Your task to perform on an android device: turn off notifications settings in the gmail app Image 0: 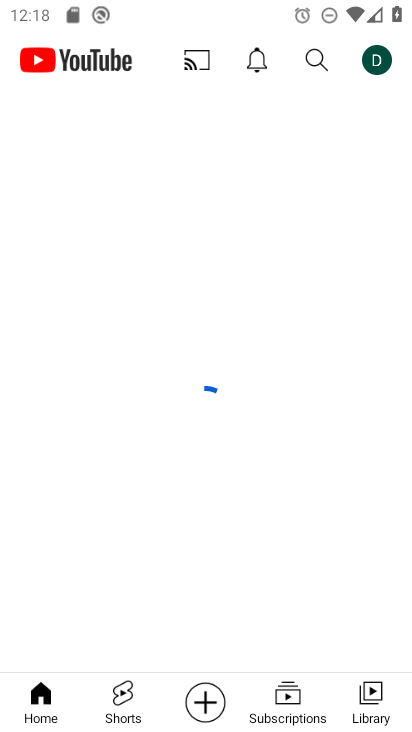
Step 0: press home button
Your task to perform on an android device: turn off notifications settings in the gmail app Image 1: 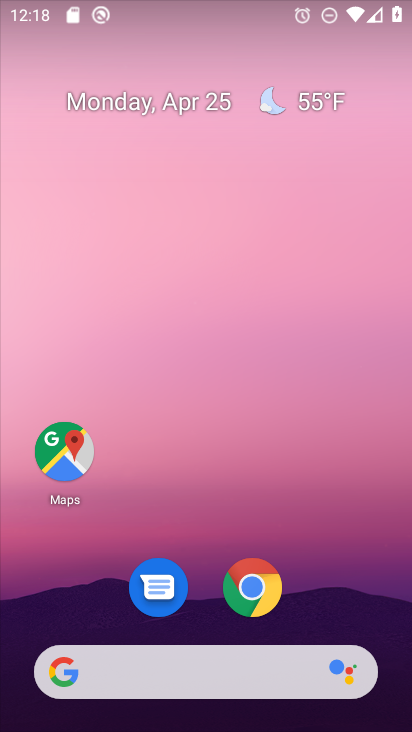
Step 1: drag from (323, 567) to (270, 50)
Your task to perform on an android device: turn off notifications settings in the gmail app Image 2: 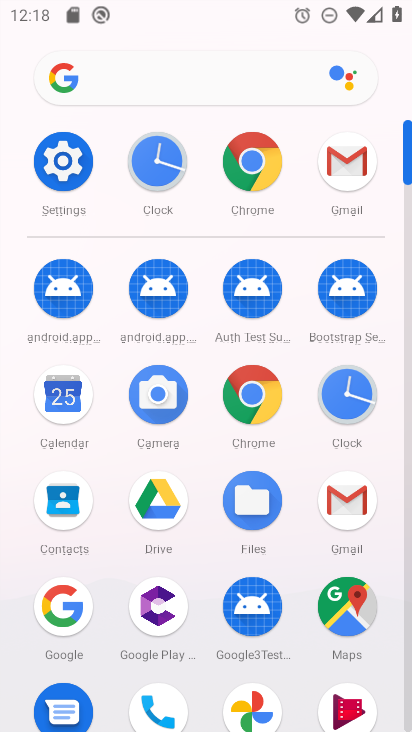
Step 2: click (349, 170)
Your task to perform on an android device: turn off notifications settings in the gmail app Image 3: 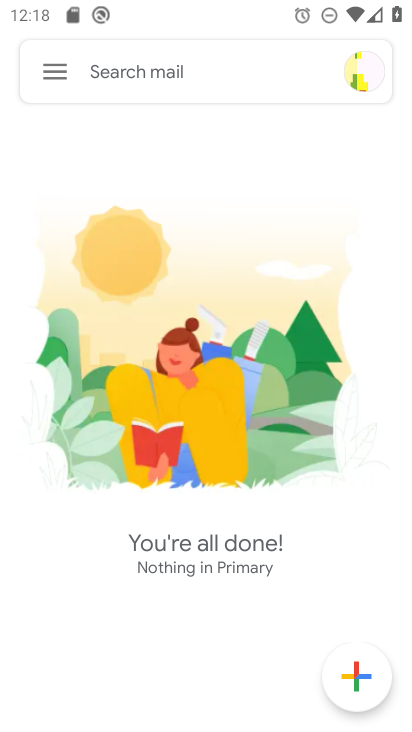
Step 3: click (61, 62)
Your task to perform on an android device: turn off notifications settings in the gmail app Image 4: 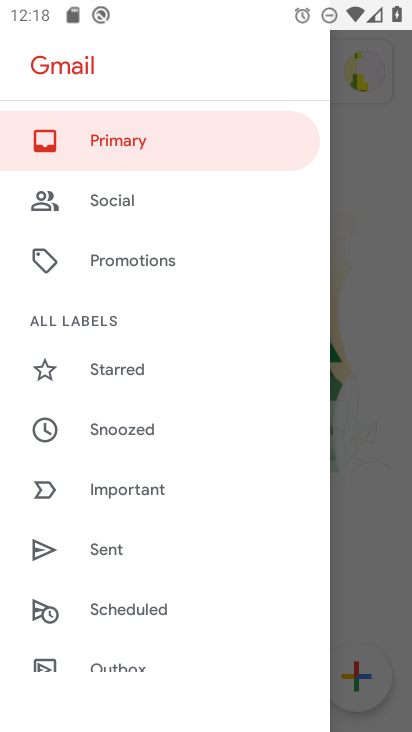
Step 4: drag from (178, 629) to (178, 179)
Your task to perform on an android device: turn off notifications settings in the gmail app Image 5: 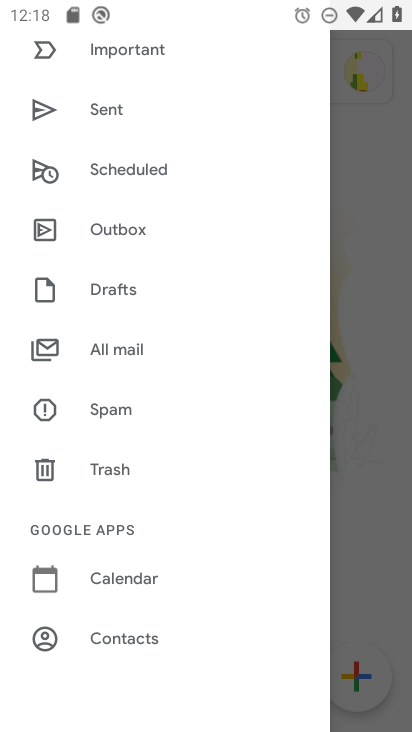
Step 5: drag from (156, 388) to (163, 175)
Your task to perform on an android device: turn off notifications settings in the gmail app Image 6: 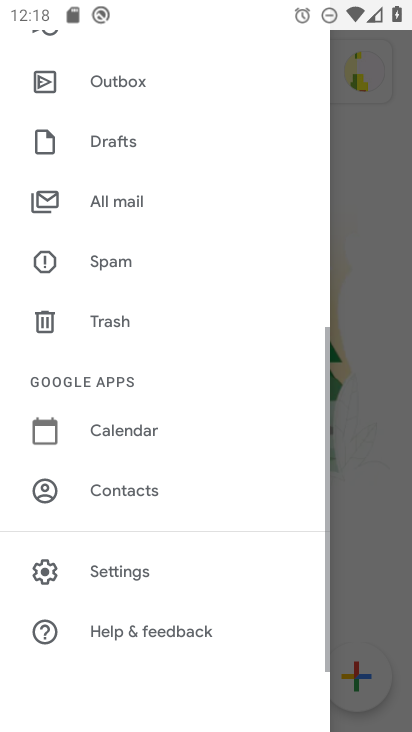
Step 6: click (115, 565)
Your task to perform on an android device: turn off notifications settings in the gmail app Image 7: 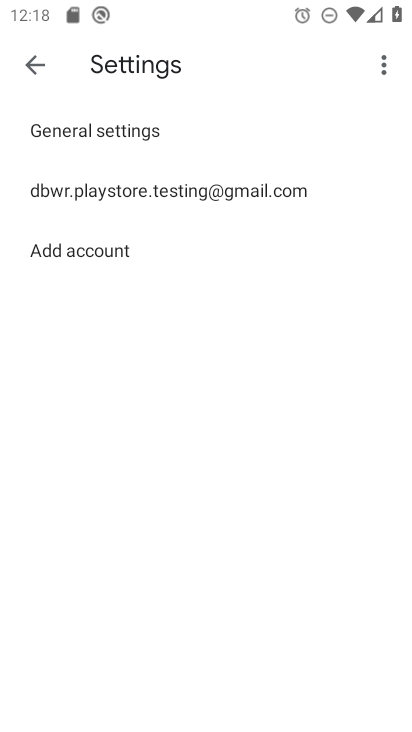
Step 7: click (201, 198)
Your task to perform on an android device: turn off notifications settings in the gmail app Image 8: 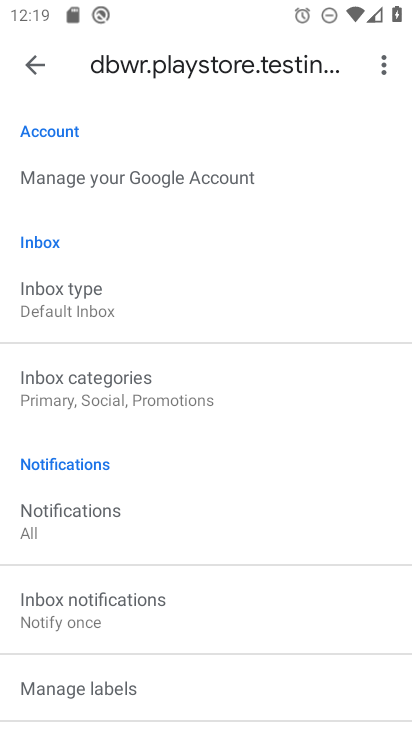
Step 8: drag from (231, 431) to (272, 211)
Your task to perform on an android device: turn off notifications settings in the gmail app Image 9: 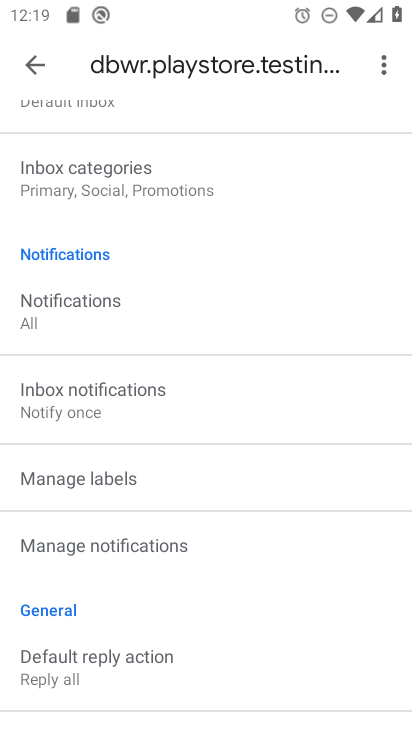
Step 9: drag from (224, 441) to (285, 197)
Your task to perform on an android device: turn off notifications settings in the gmail app Image 10: 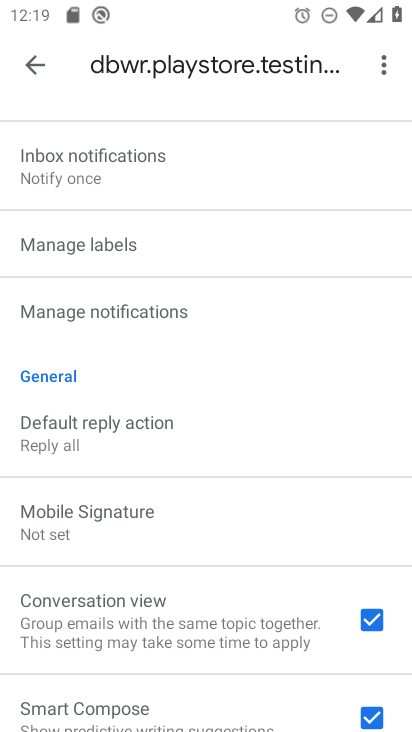
Step 10: click (169, 315)
Your task to perform on an android device: turn off notifications settings in the gmail app Image 11: 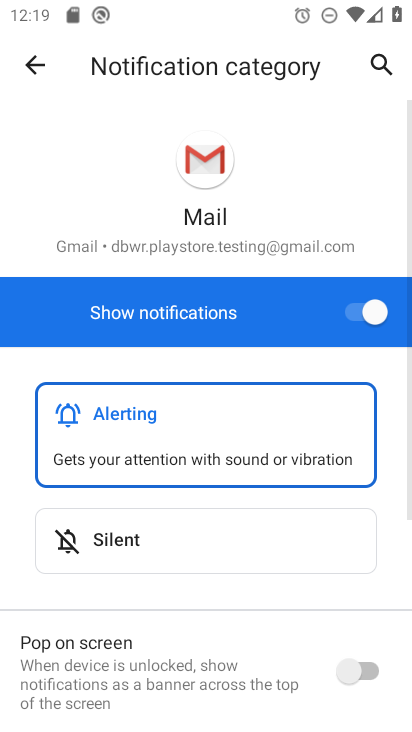
Step 11: click (370, 313)
Your task to perform on an android device: turn off notifications settings in the gmail app Image 12: 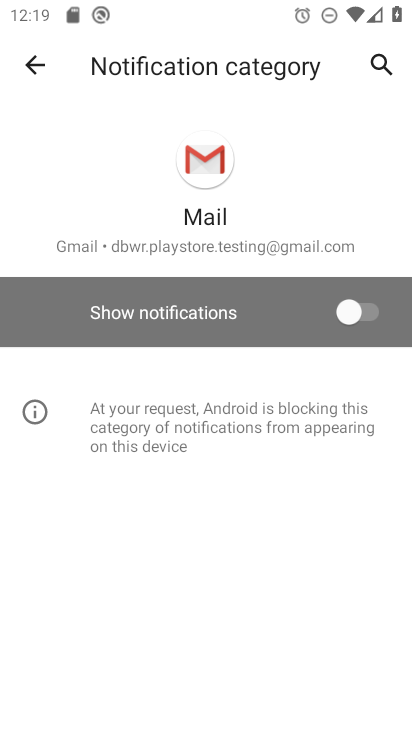
Step 12: task complete